Your task to perform on an android device: search for starred emails in the gmail app Image 0: 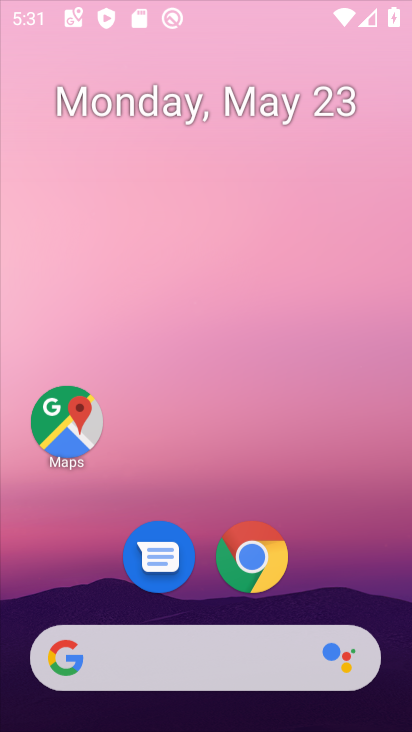
Step 0: press home button
Your task to perform on an android device: search for starred emails in the gmail app Image 1: 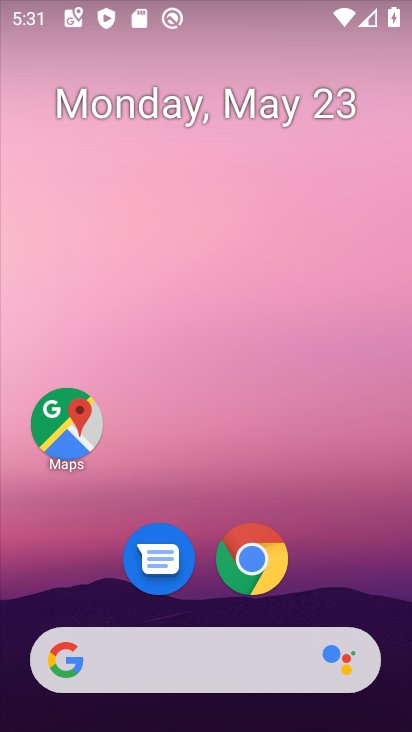
Step 1: drag from (338, 548) to (291, 30)
Your task to perform on an android device: search for starred emails in the gmail app Image 2: 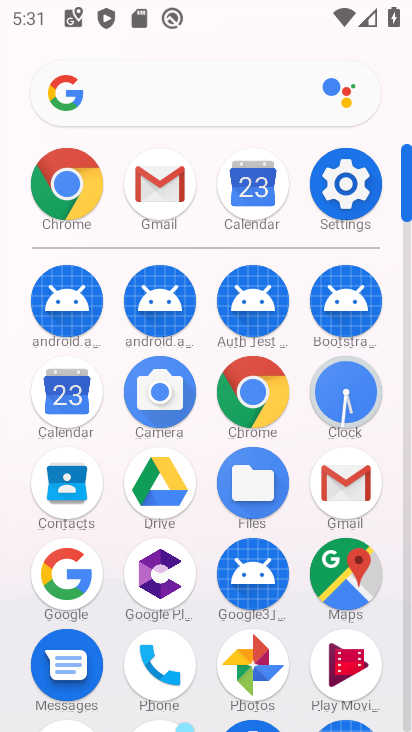
Step 2: click (351, 485)
Your task to perform on an android device: search for starred emails in the gmail app Image 3: 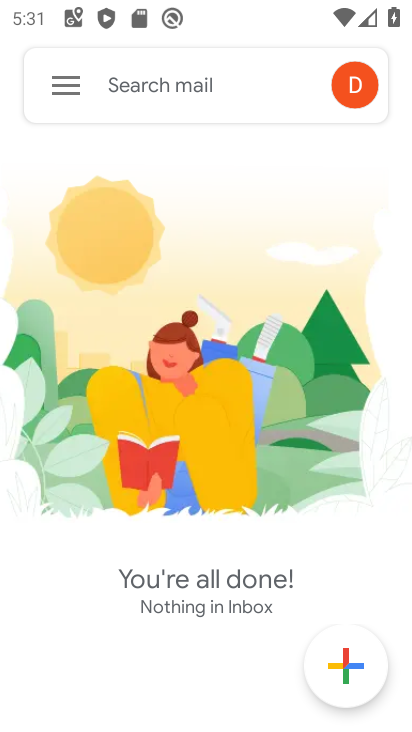
Step 3: click (58, 88)
Your task to perform on an android device: search for starred emails in the gmail app Image 4: 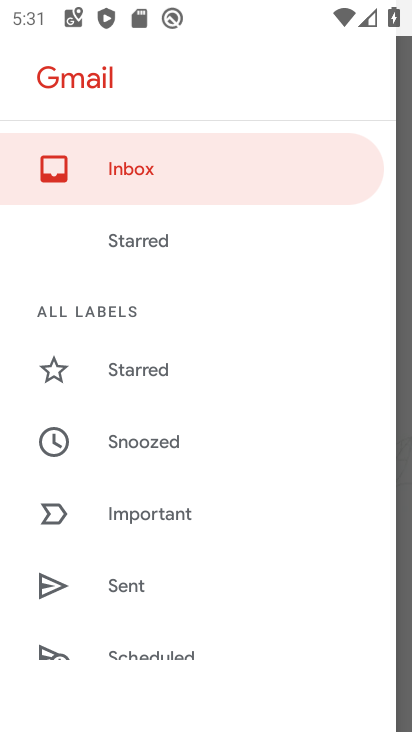
Step 4: click (146, 368)
Your task to perform on an android device: search for starred emails in the gmail app Image 5: 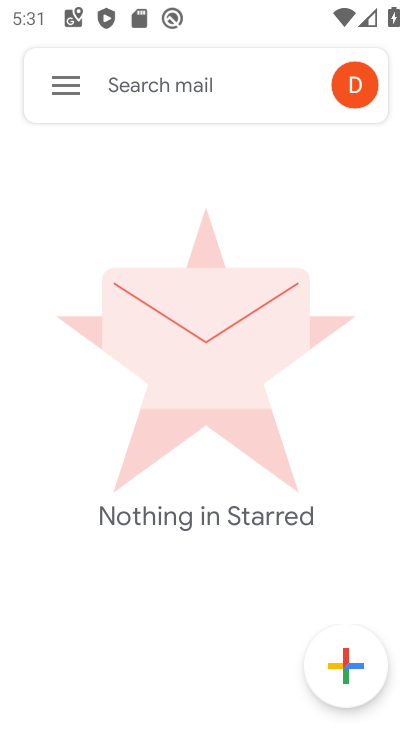
Step 5: task complete